Your task to perform on an android device: open a bookmark in the chrome app Image 0: 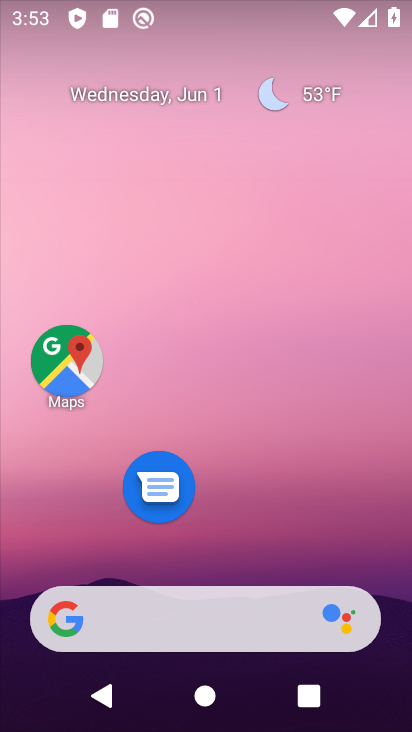
Step 0: drag from (233, 534) to (334, 42)
Your task to perform on an android device: open a bookmark in the chrome app Image 1: 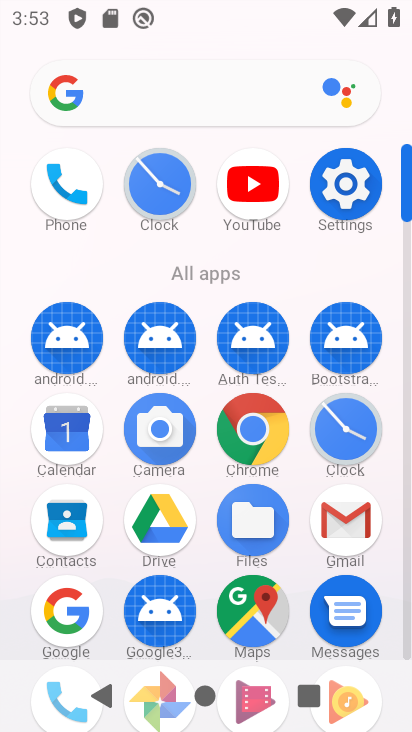
Step 1: click (254, 430)
Your task to perform on an android device: open a bookmark in the chrome app Image 2: 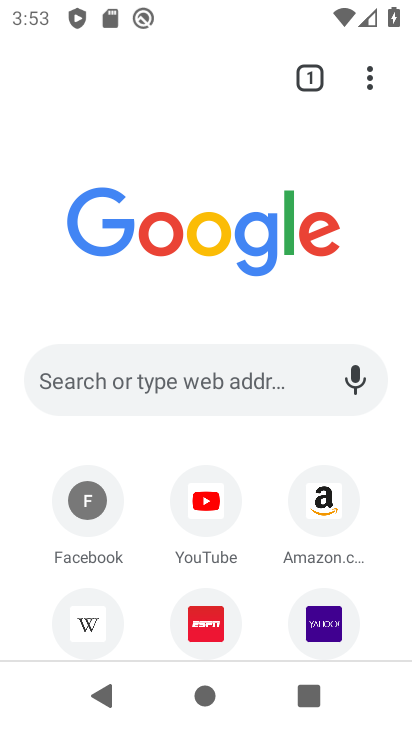
Step 2: click (372, 91)
Your task to perform on an android device: open a bookmark in the chrome app Image 3: 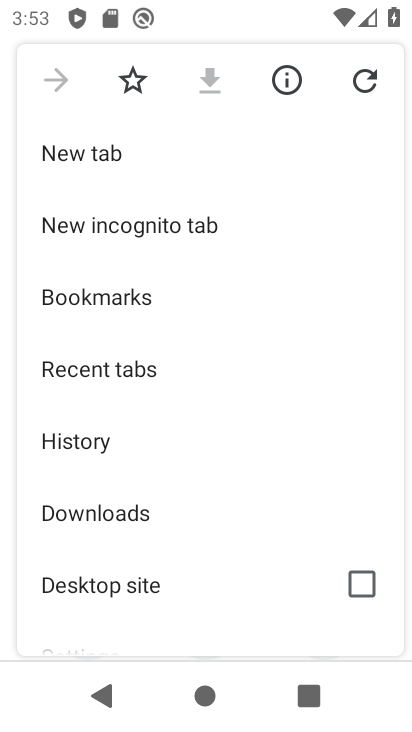
Step 3: click (110, 293)
Your task to perform on an android device: open a bookmark in the chrome app Image 4: 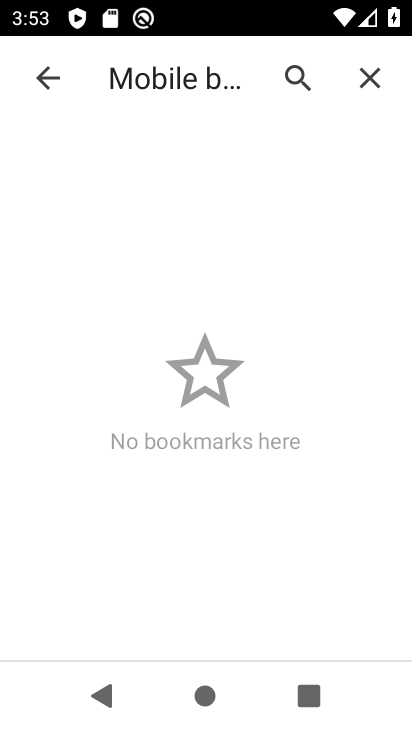
Step 4: task complete